Your task to perform on an android device: Go to ESPN.com Image 0: 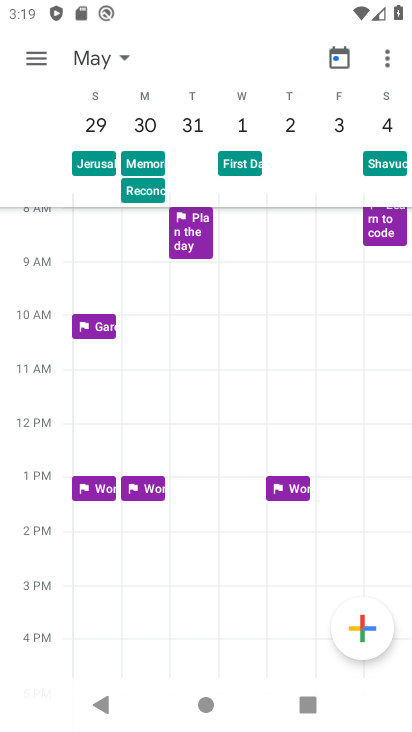
Step 0: press home button
Your task to perform on an android device: Go to ESPN.com Image 1: 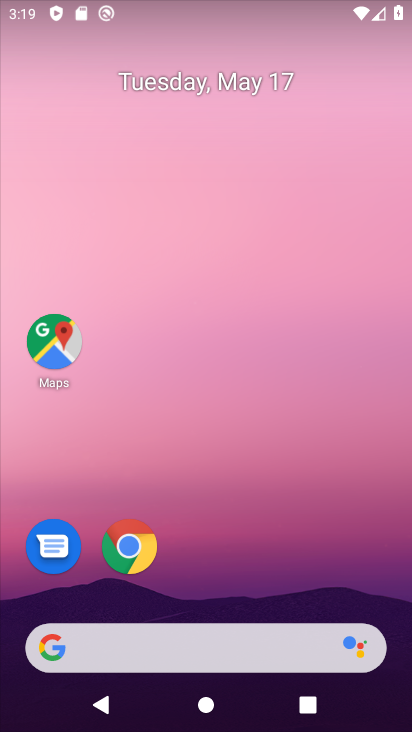
Step 1: click (128, 535)
Your task to perform on an android device: Go to ESPN.com Image 2: 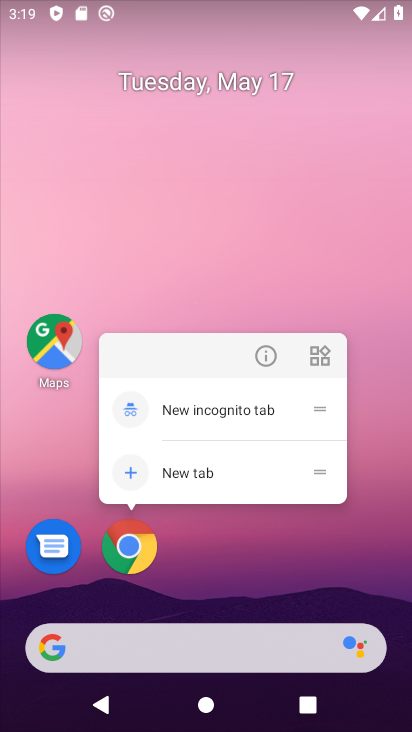
Step 2: click (125, 540)
Your task to perform on an android device: Go to ESPN.com Image 3: 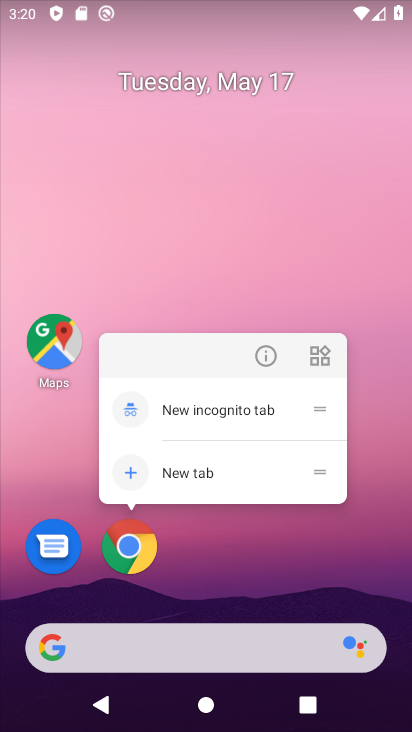
Step 3: click (260, 357)
Your task to perform on an android device: Go to ESPN.com Image 4: 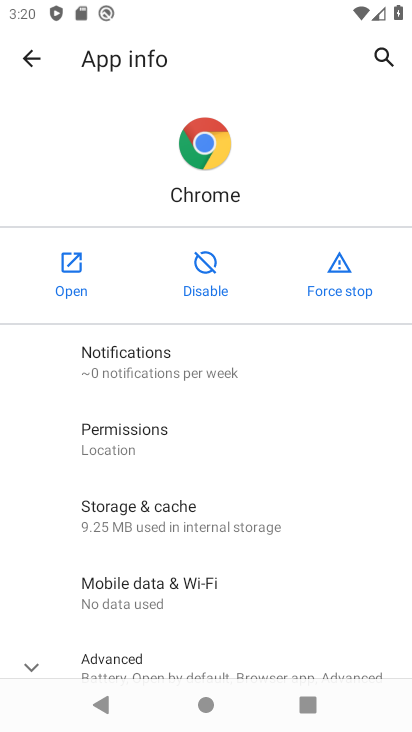
Step 4: click (83, 271)
Your task to perform on an android device: Go to ESPN.com Image 5: 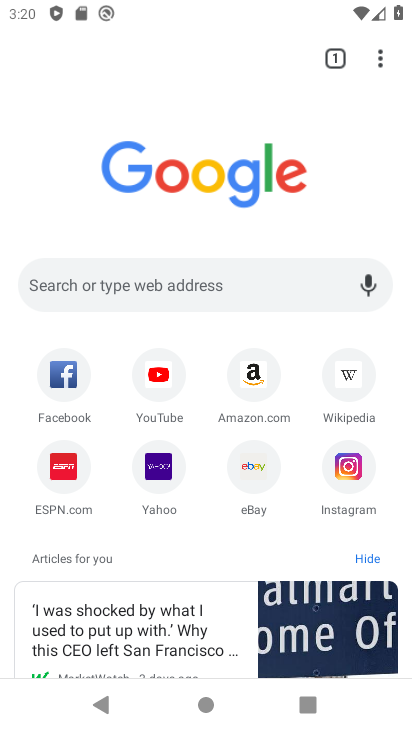
Step 5: click (124, 276)
Your task to perform on an android device: Go to ESPN.com Image 6: 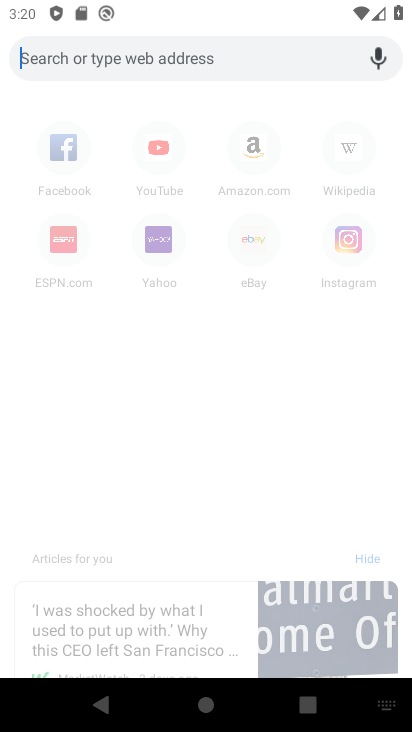
Step 6: type "ESPN.com"
Your task to perform on an android device: Go to ESPN.com Image 7: 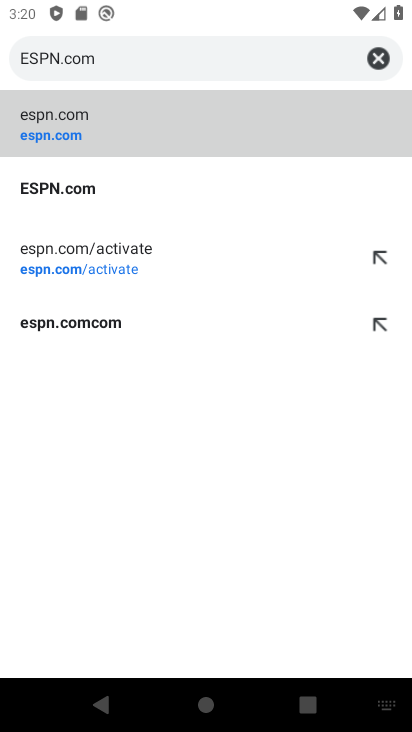
Step 7: click (213, 122)
Your task to perform on an android device: Go to ESPN.com Image 8: 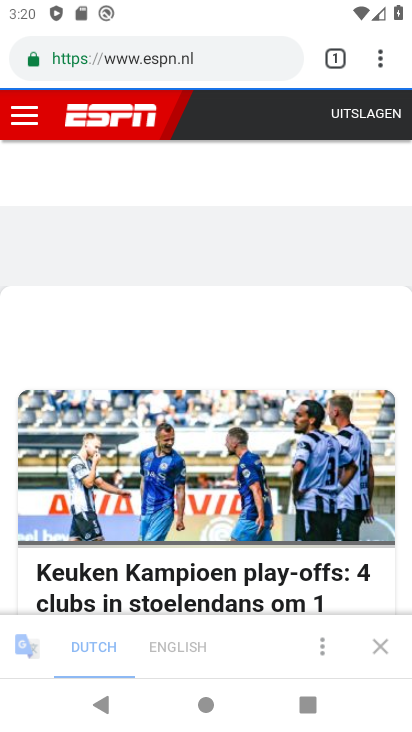
Step 8: task complete